Your task to perform on an android device: manage bookmarks in the chrome app Image 0: 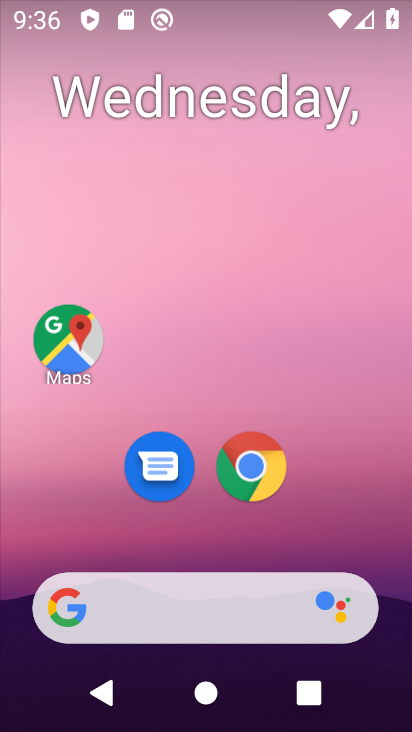
Step 0: click (265, 485)
Your task to perform on an android device: manage bookmarks in the chrome app Image 1: 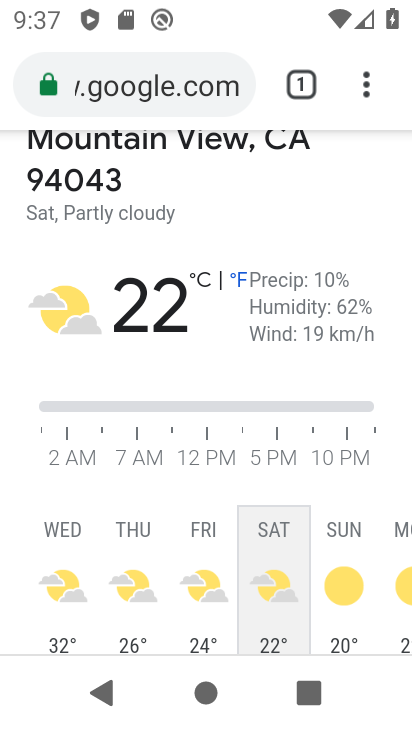
Step 1: click (364, 85)
Your task to perform on an android device: manage bookmarks in the chrome app Image 2: 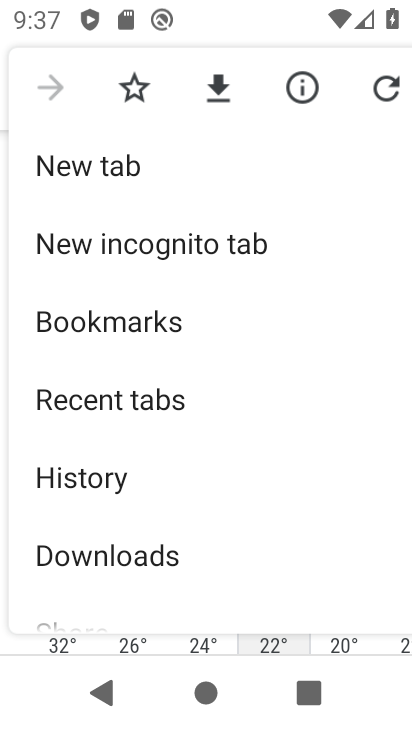
Step 2: click (103, 325)
Your task to perform on an android device: manage bookmarks in the chrome app Image 3: 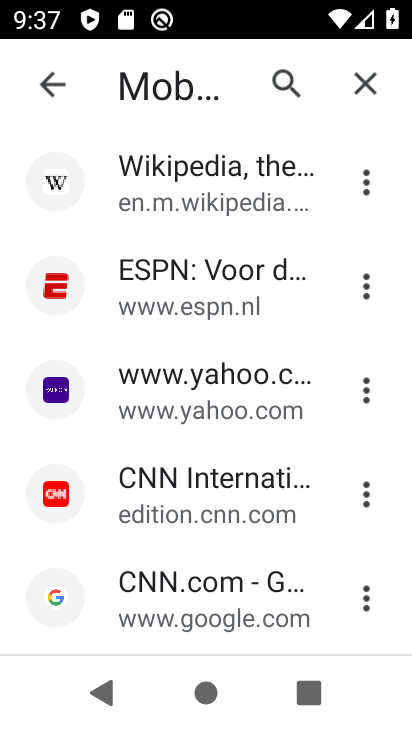
Step 3: click (366, 288)
Your task to perform on an android device: manage bookmarks in the chrome app Image 4: 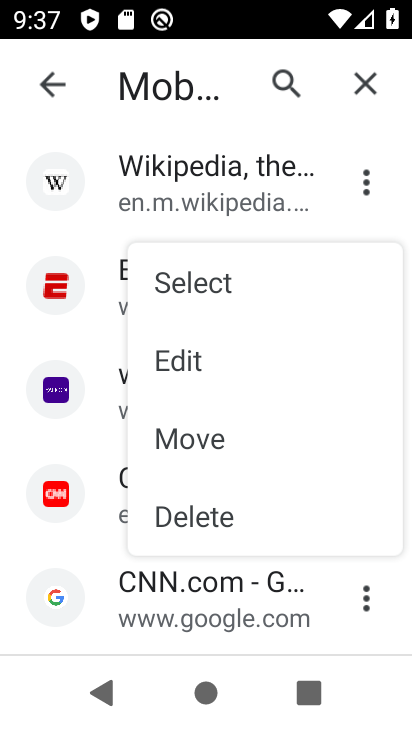
Step 4: click (182, 519)
Your task to perform on an android device: manage bookmarks in the chrome app Image 5: 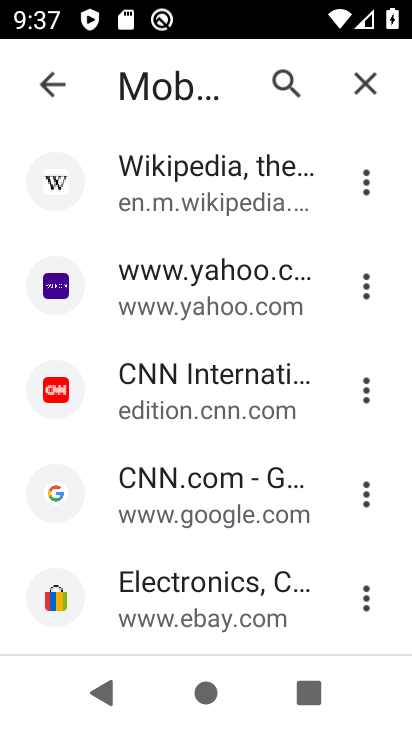
Step 5: click (363, 504)
Your task to perform on an android device: manage bookmarks in the chrome app Image 6: 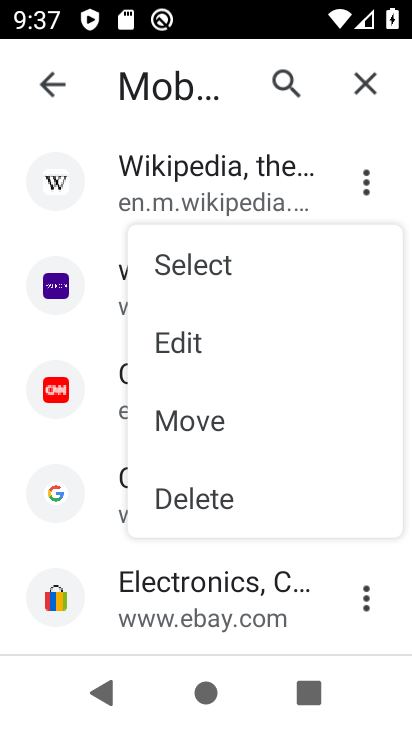
Step 6: click (289, 510)
Your task to perform on an android device: manage bookmarks in the chrome app Image 7: 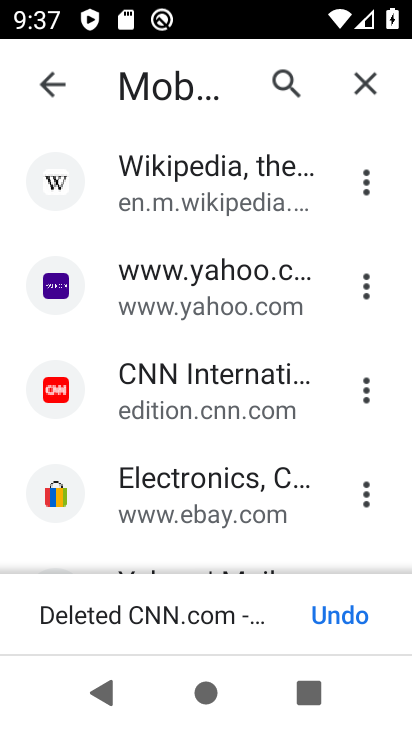
Step 7: task complete